Your task to perform on an android device: Open CNN.com Image 0: 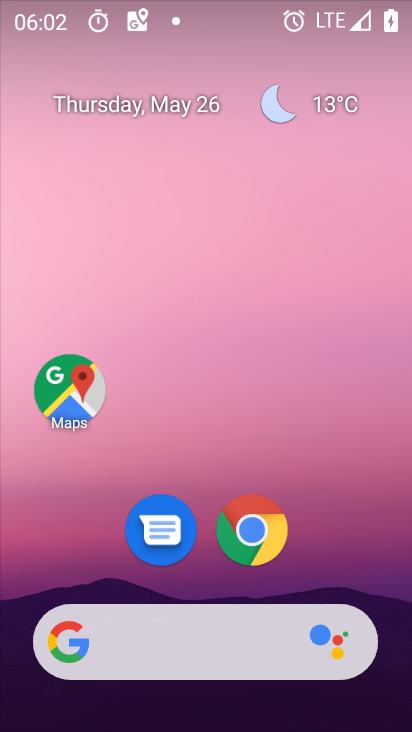
Step 0: drag from (306, 656) to (346, 14)
Your task to perform on an android device: Open CNN.com Image 1: 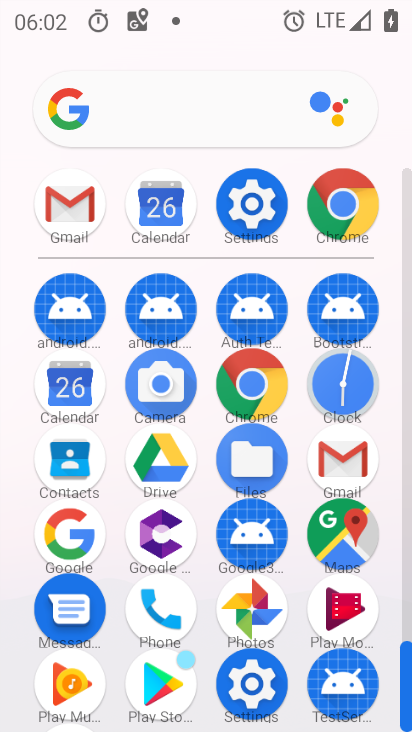
Step 1: click (270, 390)
Your task to perform on an android device: Open CNN.com Image 2: 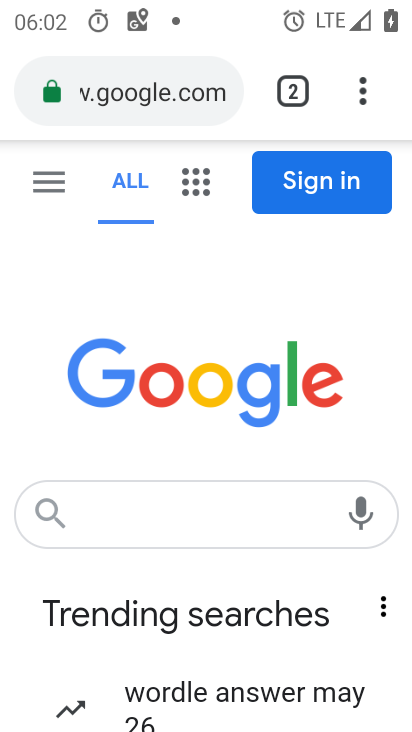
Step 2: click (192, 104)
Your task to perform on an android device: Open CNN.com Image 3: 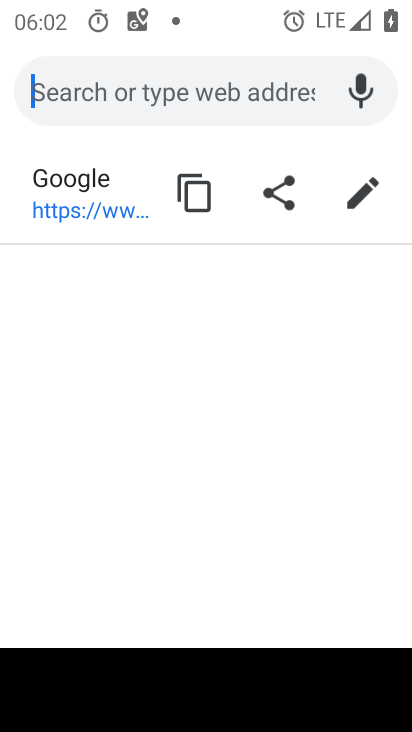
Step 3: type "cnn.com"
Your task to perform on an android device: Open CNN.com Image 4: 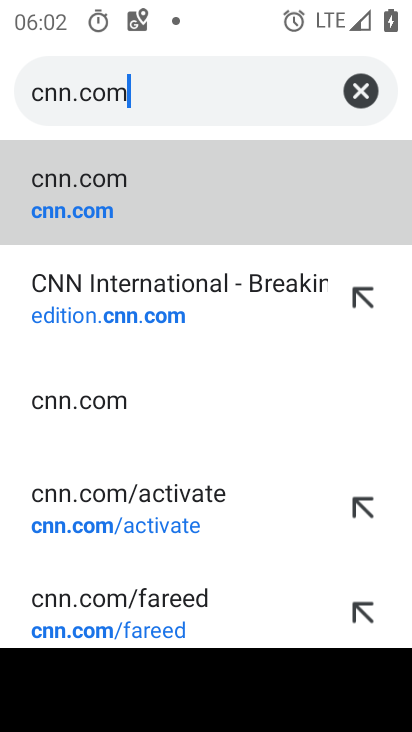
Step 4: click (124, 193)
Your task to perform on an android device: Open CNN.com Image 5: 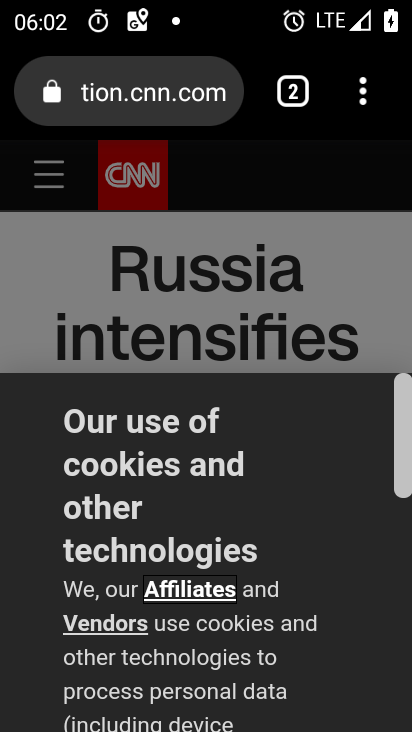
Step 5: task complete